Your task to perform on an android device: add a label to a message in the gmail app Image 0: 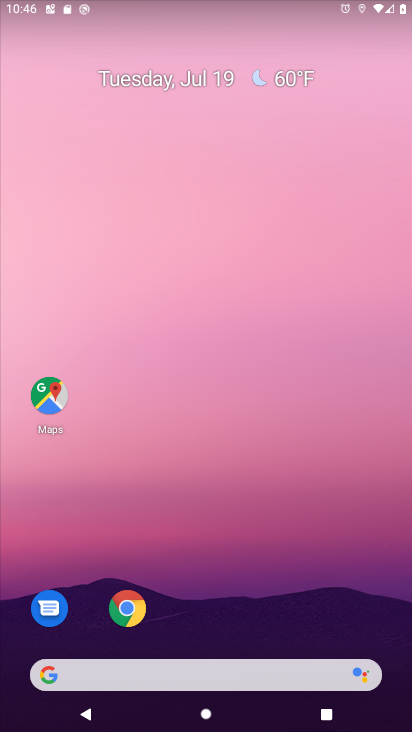
Step 0: drag from (223, 630) to (295, 31)
Your task to perform on an android device: add a label to a message in the gmail app Image 1: 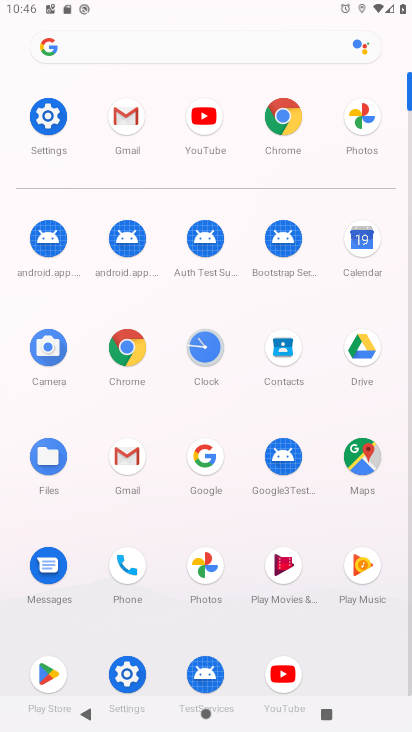
Step 1: click (125, 469)
Your task to perform on an android device: add a label to a message in the gmail app Image 2: 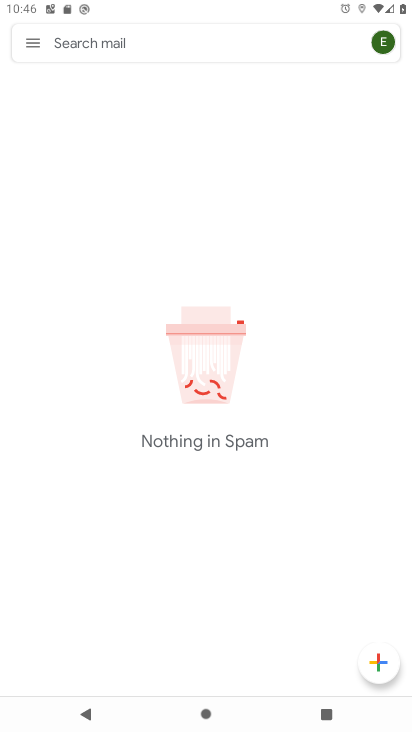
Step 2: click (30, 40)
Your task to perform on an android device: add a label to a message in the gmail app Image 3: 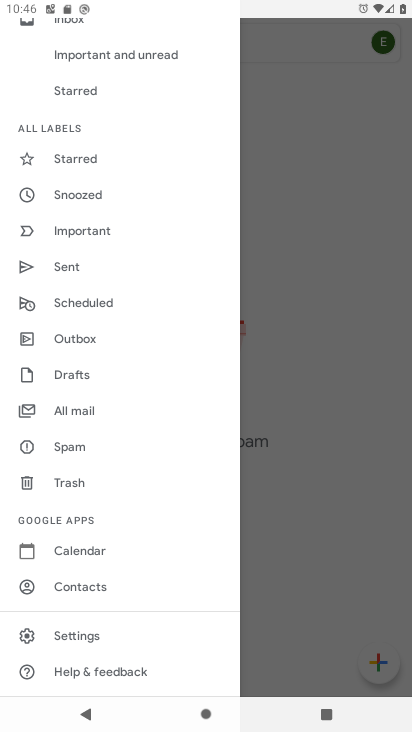
Step 3: drag from (64, 62) to (4, 182)
Your task to perform on an android device: add a label to a message in the gmail app Image 4: 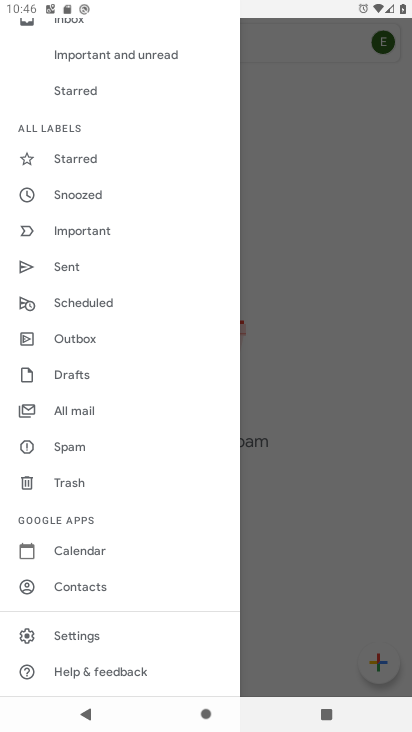
Step 4: drag from (48, 131) to (269, 598)
Your task to perform on an android device: add a label to a message in the gmail app Image 5: 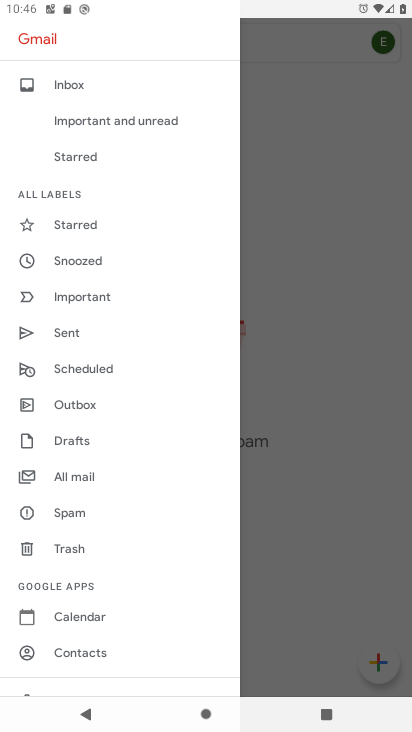
Step 5: click (59, 71)
Your task to perform on an android device: add a label to a message in the gmail app Image 6: 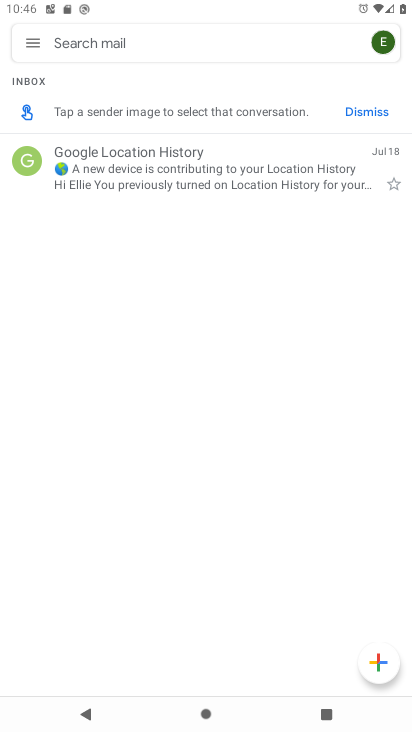
Step 6: click (124, 144)
Your task to perform on an android device: add a label to a message in the gmail app Image 7: 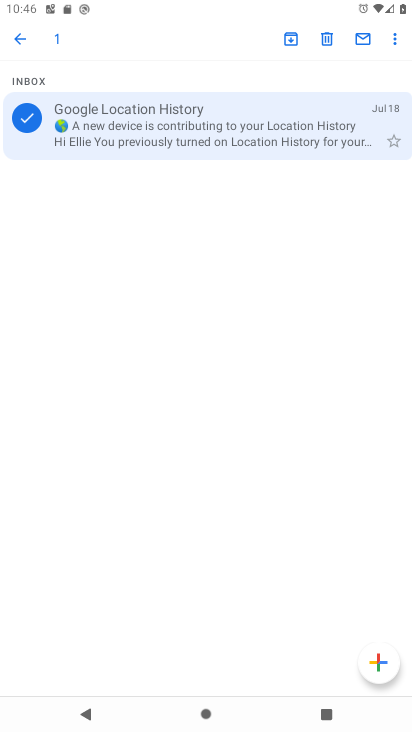
Step 7: click (397, 37)
Your task to perform on an android device: add a label to a message in the gmail app Image 8: 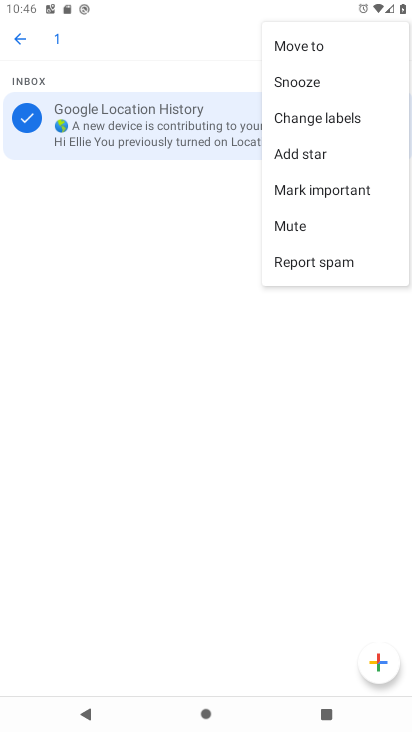
Step 8: click (307, 119)
Your task to perform on an android device: add a label to a message in the gmail app Image 9: 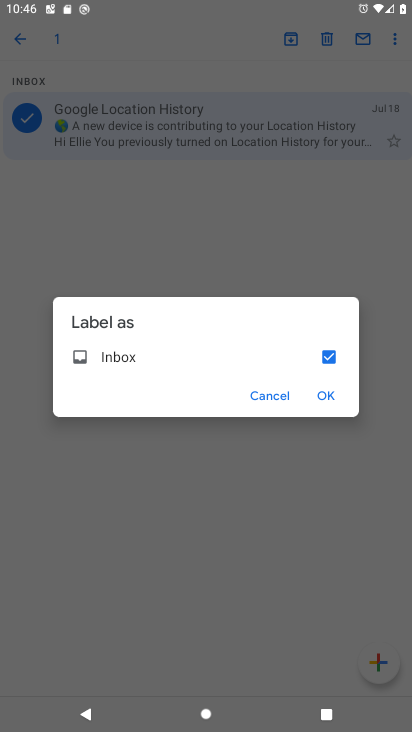
Step 9: click (324, 358)
Your task to perform on an android device: add a label to a message in the gmail app Image 10: 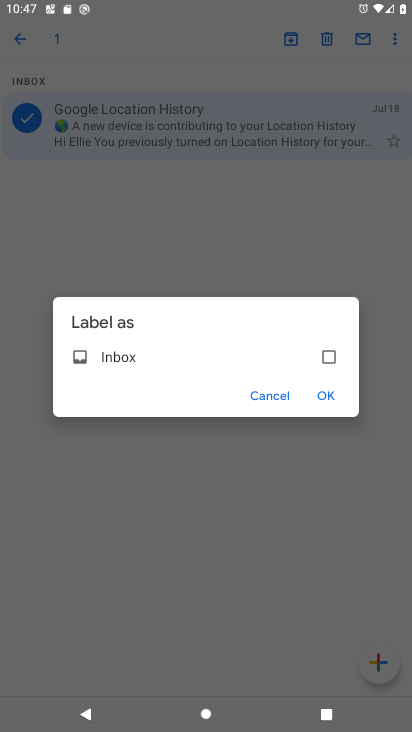
Step 10: click (328, 387)
Your task to perform on an android device: add a label to a message in the gmail app Image 11: 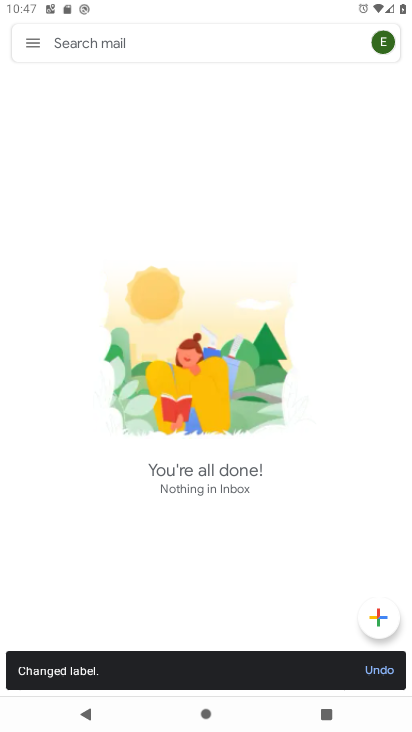
Step 11: task complete